Your task to perform on an android device: check android version Image 0: 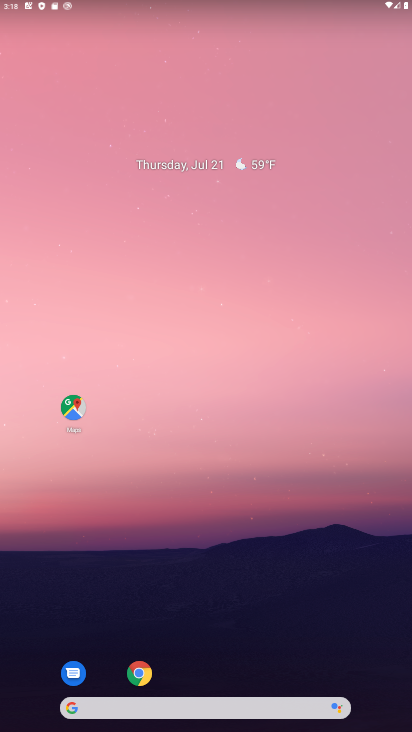
Step 0: drag from (377, 661) to (215, 122)
Your task to perform on an android device: check android version Image 1: 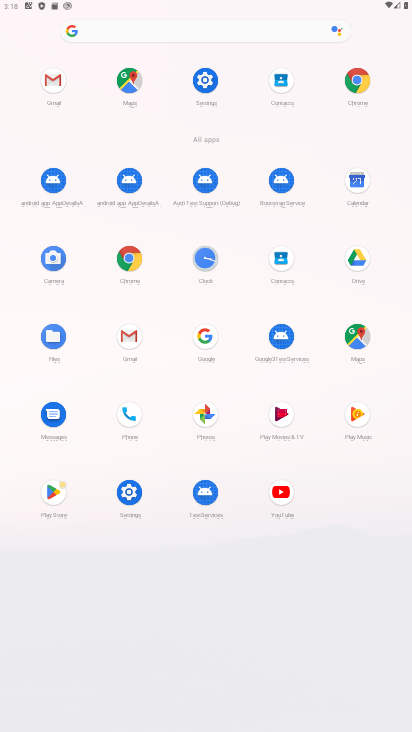
Step 1: click (203, 77)
Your task to perform on an android device: check android version Image 2: 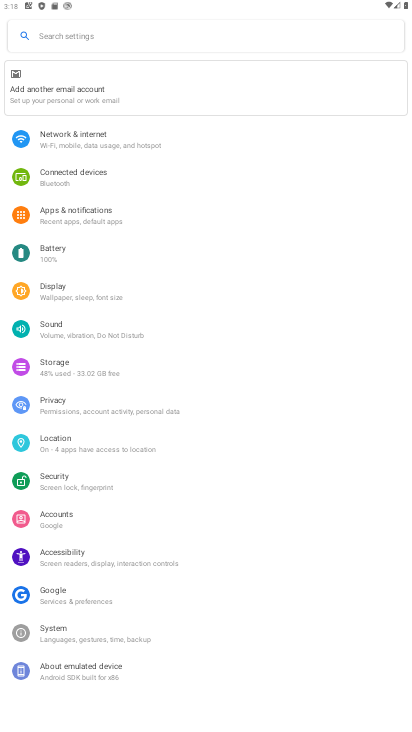
Step 2: click (266, 676)
Your task to perform on an android device: check android version Image 3: 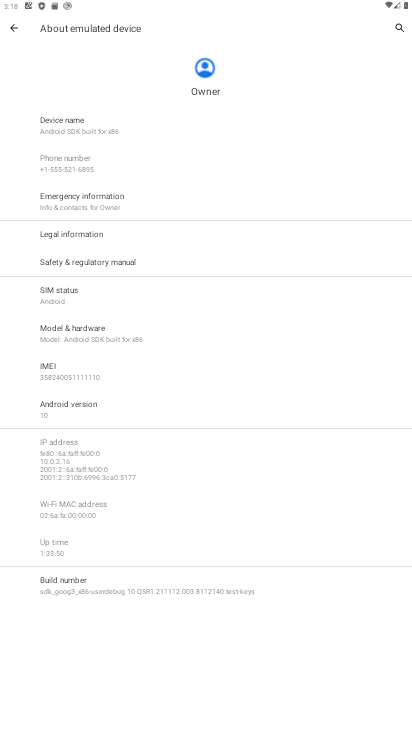
Step 3: click (158, 403)
Your task to perform on an android device: check android version Image 4: 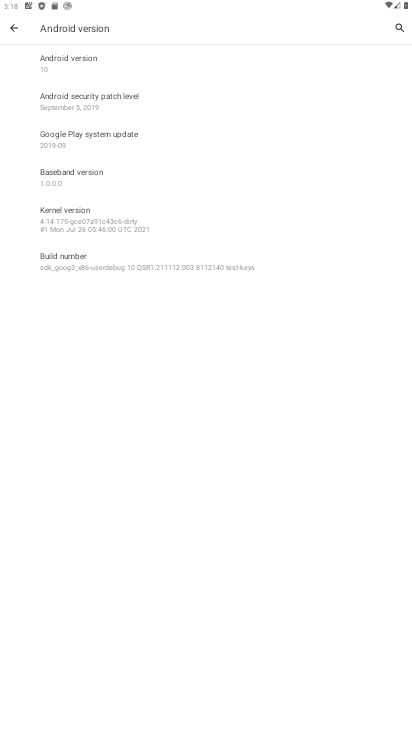
Step 4: task complete